Your task to perform on an android device: Open network settings Image 0: 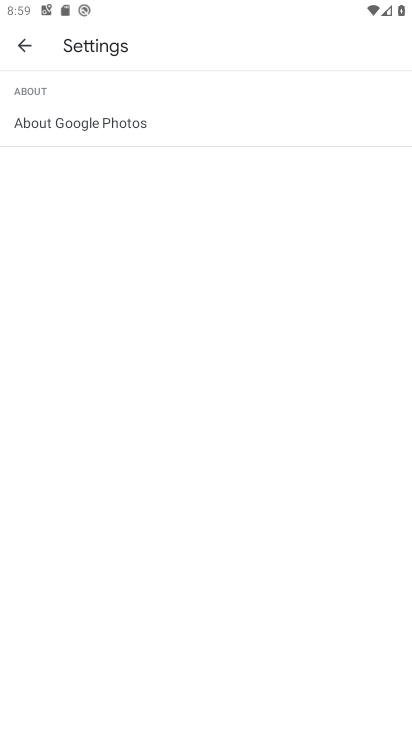
Step 0: press home button
Your task to perform on an android device: Open network settings Image 1: 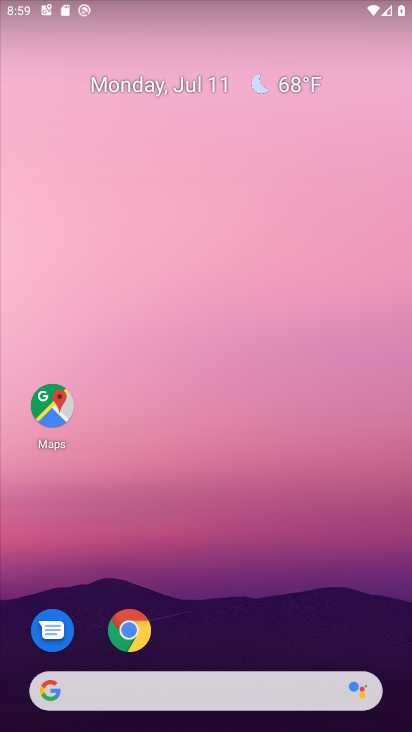
Step 1: drag from (206, 633) to (90, 22)
Your task to perform on an android device: Open network settings Image 2: 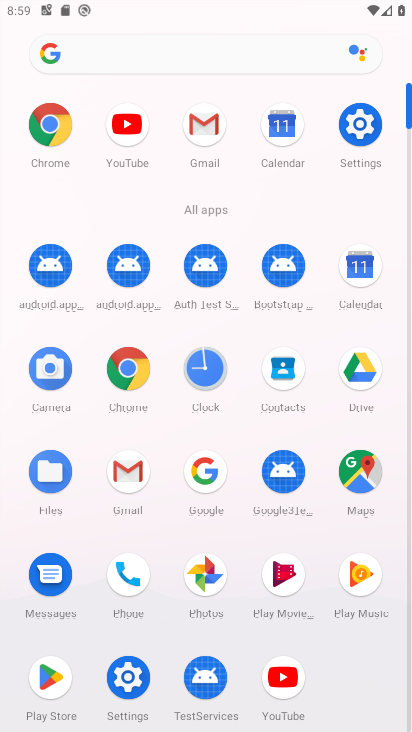
Step 2: click (365, 129)
Your task to perform on an android device: Open network settings Image 3: 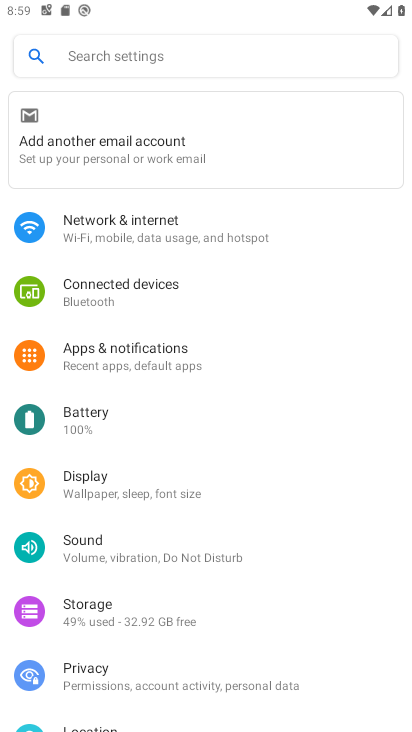
Step 3: click (183, 225)
Your task to perform on an android device: Open network settings Image 4: 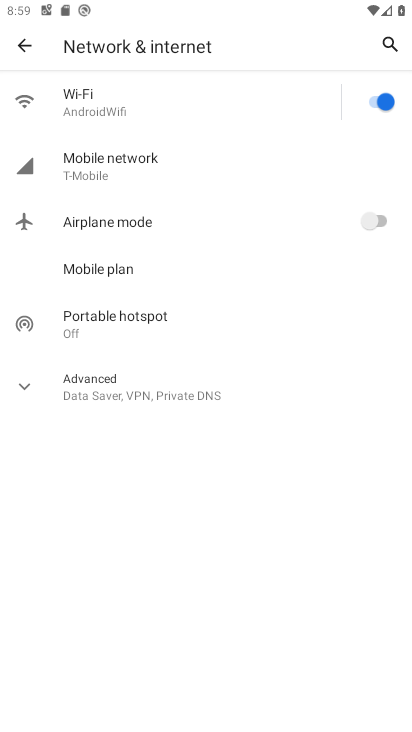
Step 4: click (143, 167)
Your task to perform on an android device: Open network settings Image 5: 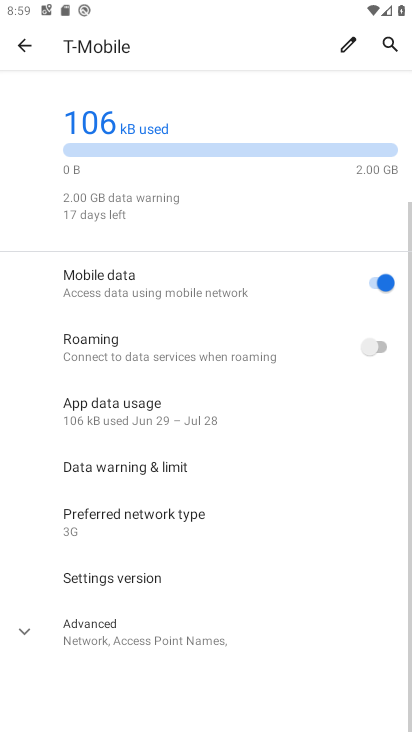
Step 5: task complete